Your task to perform on an android device: check battery use Image 0: 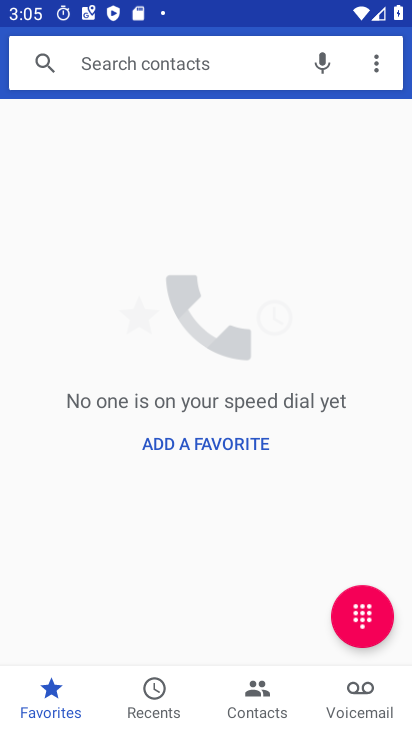
Step 0: press home button
Your task to perform on an android device: check battery use Image 1: 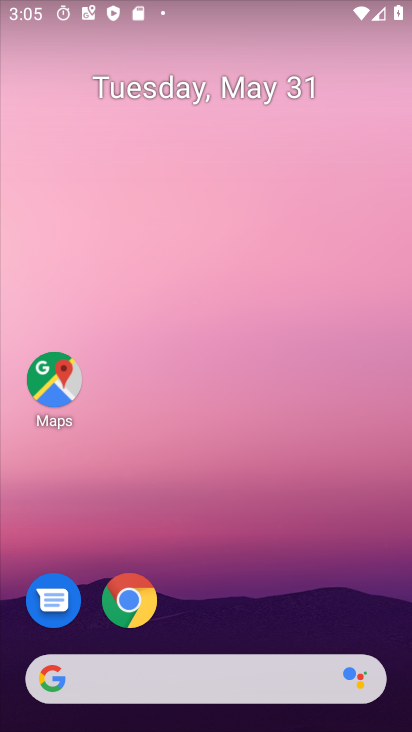
Step 1: drag from (206, 637) to (249, 30)
Your task to perform on an android device: check battery use Image 2: 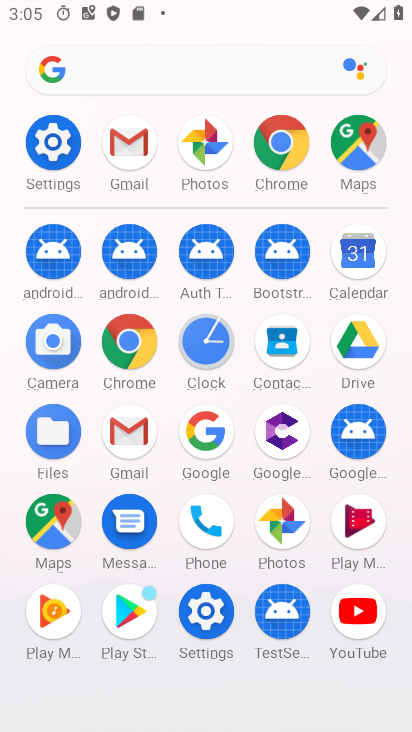
Step 2: click (204, 606)
Your task to perform on an android device: check battery use Image 3: 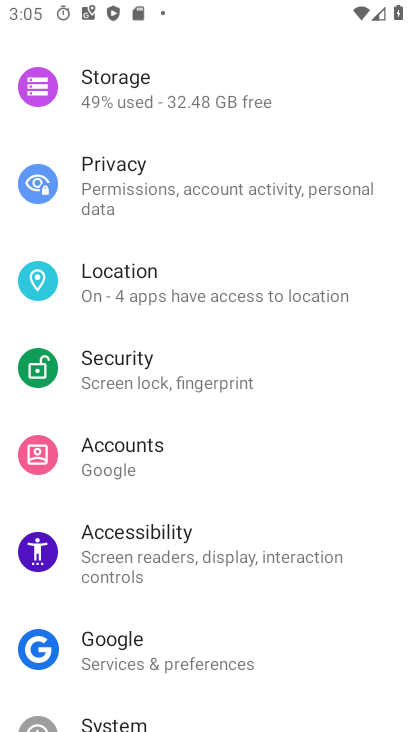
Step 3: drag from (165, 63) to (205, 643)
Your task to perform on an android device: check battery use Image 4: 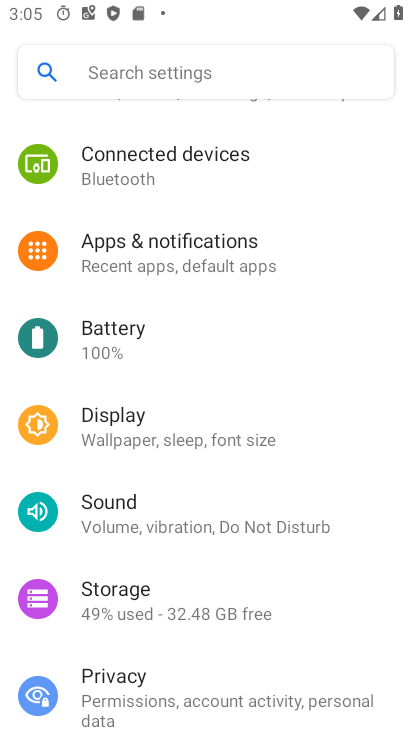
Step 4: click (141, 343)
Your task to perform on an android device: check battery use Image 5: 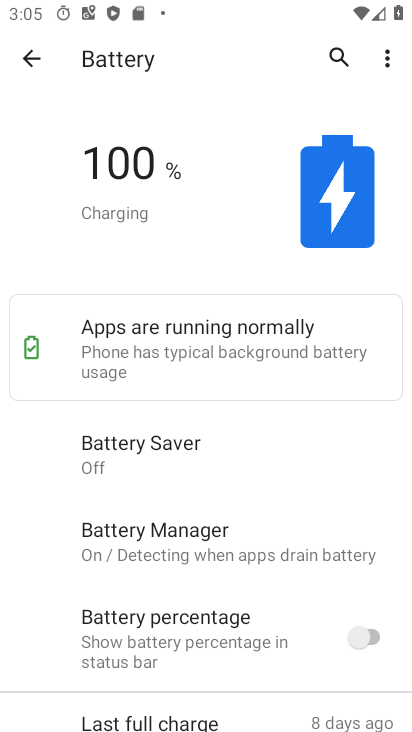
Step 5: task complete